Your task to perform on an android device: remove spam from my inbox in the gmail app Image 0: 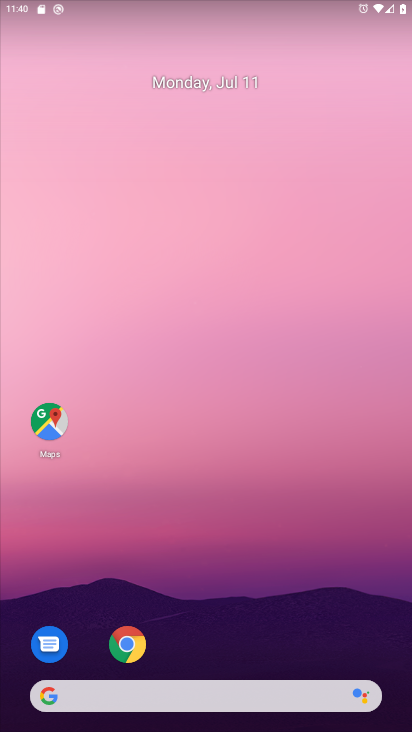
Step 0: drag from (254, 601) to (327, 31)
Your task to perform on an android device: remove spam from my inbox in the gmail app Image 1: 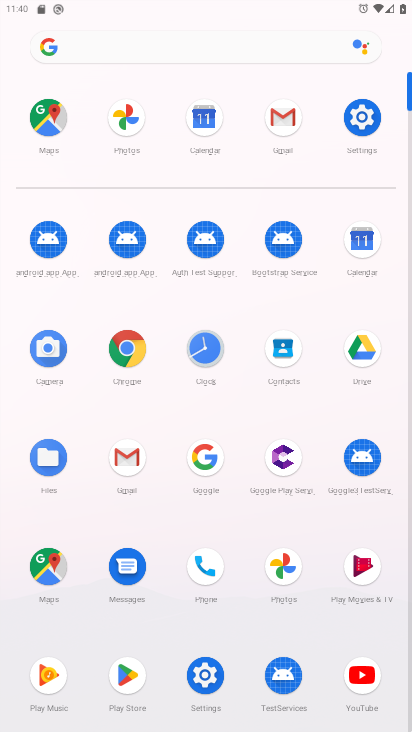
Step 1: click (282, 122)
Your task to perform on an android device: remove spam from my inbox in the gmail app Image 2: 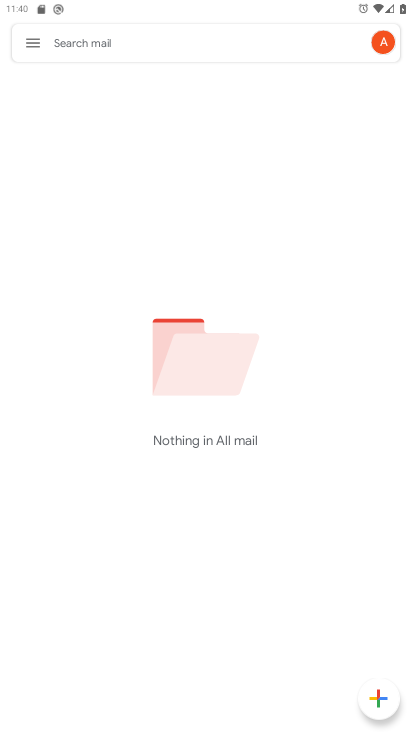
Step 2: click (36, 45)
Your task to perform on an android device: remove spam from my inbox in the gmail app Image 3: 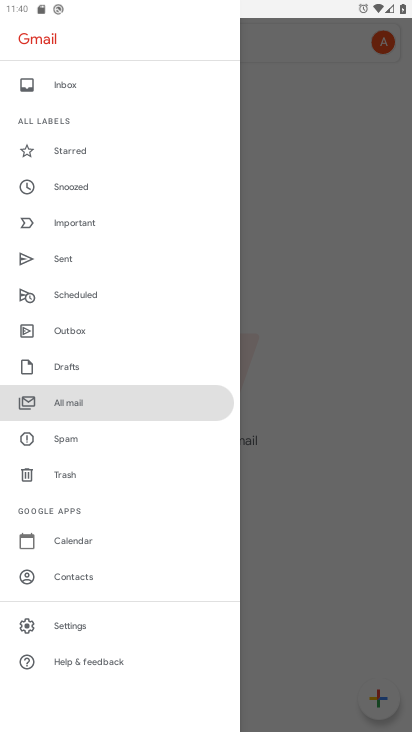
Step 3: click (100, 435)
Your task to perform on an android device: remove spam from my inbox in the gmail app Image 4: 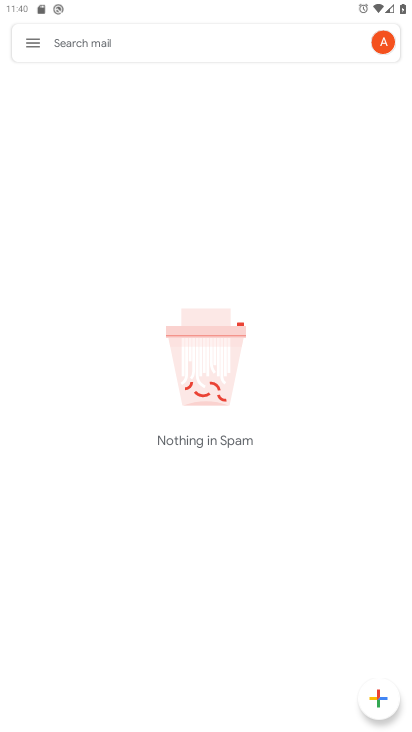
Step 4: task complete